Your task to perform on an android device: delete location history Image 0: 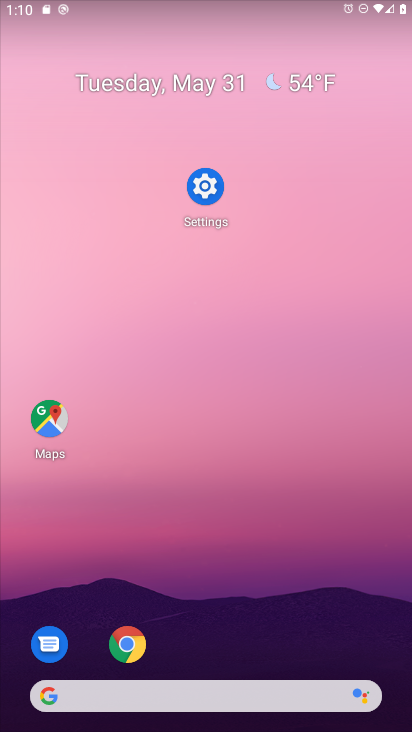
Step 0: press home button
Your task to perform on an android device: delete location history Image 1: 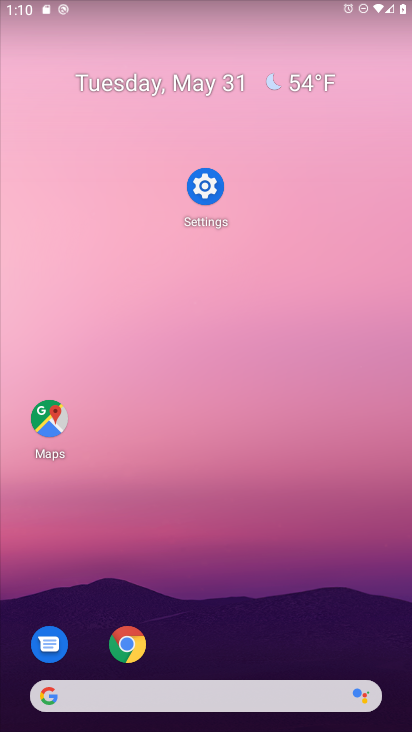
Step 1: drag from (230, 641) to (195, 104)
Your task to perform on an android device: delete location history Image 2: 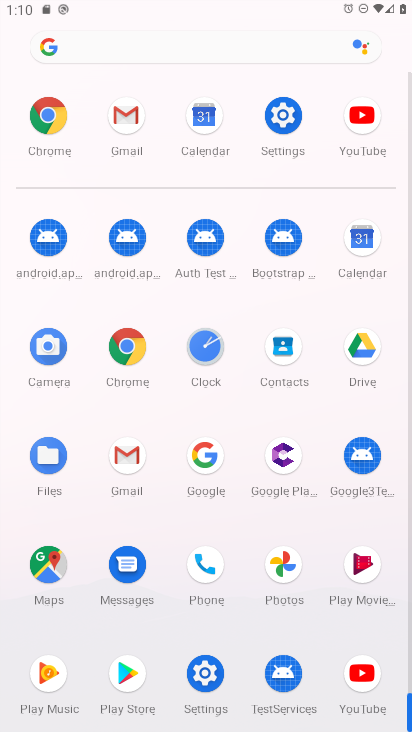
Step 2: click (47, 567)
Your task to perform on an android device: delete location history Image 3: 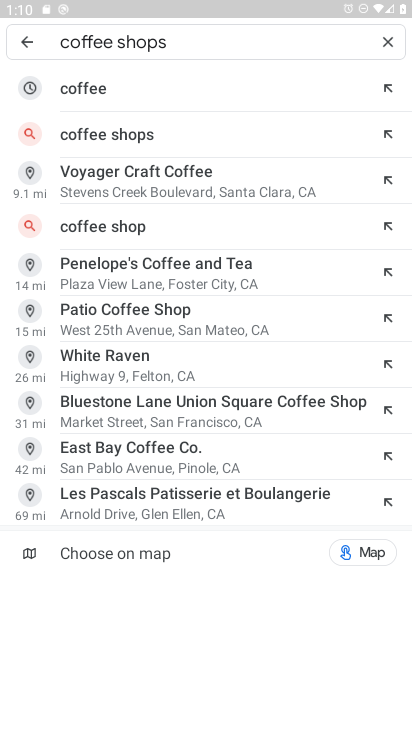
Step 3: click (390, 38)
Your task to perform on an android device: delete location history Image 4: 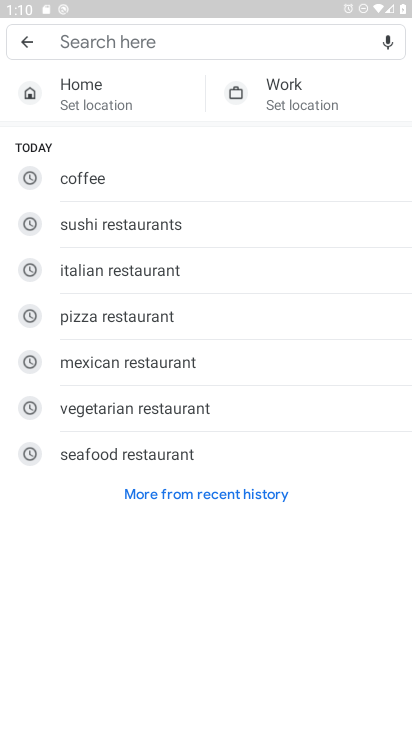
Step 4: click (31, 42)
Your task to perform on an android device: delete location history Image 5: 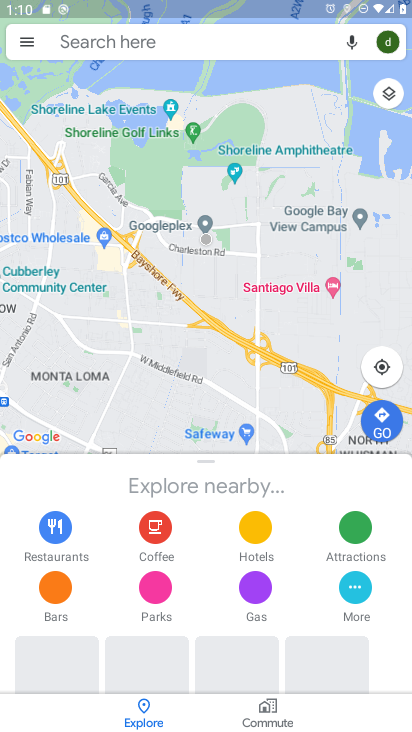
Step 5: click (31, 39)
Your task to perform on an android device: delete location history Image 6: 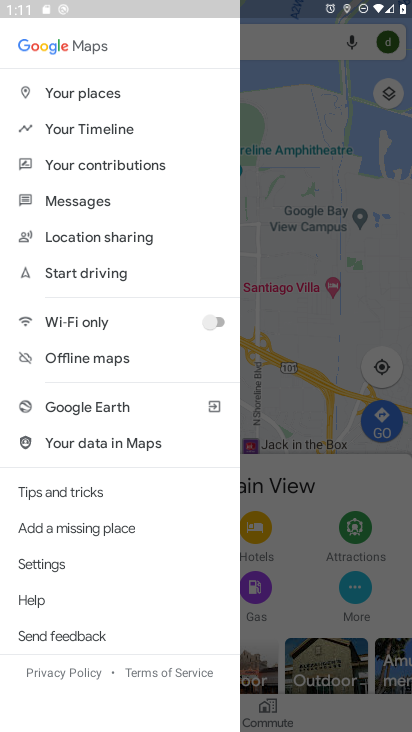
Step 6: click (91, 134)
Your task to perform on an android device: delete location history Image 7: 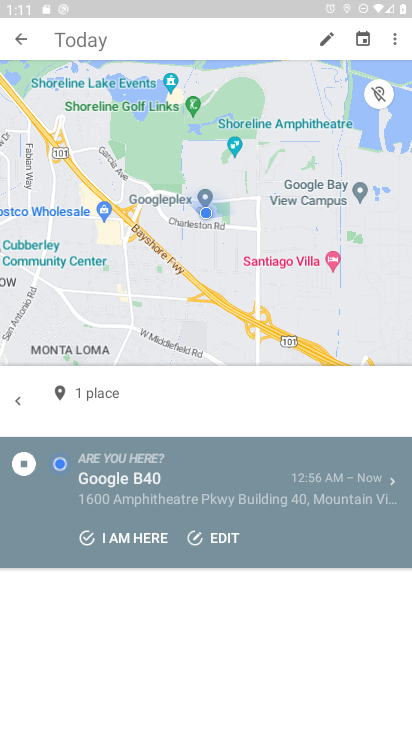
Step 7: drag from (395, 44) to (362, 75)
Your task to perform on an android device: delete location history Image 8: 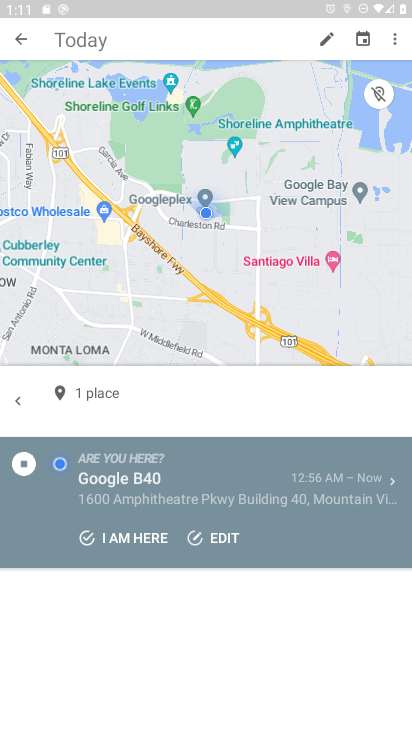
Step 8: click (394, 38)
Your task to perform on an android device: delete location history Image 9: 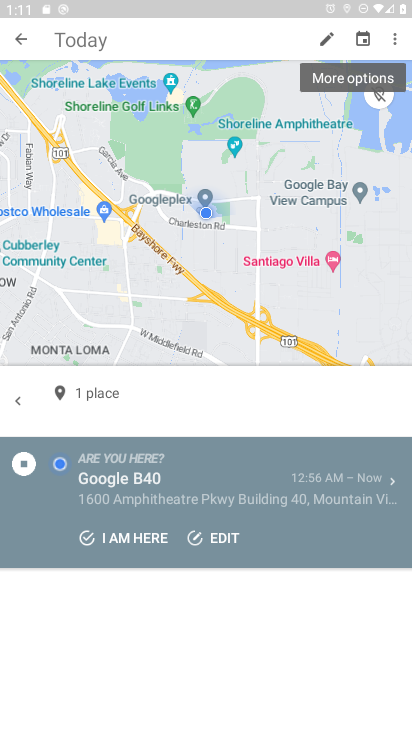
Step 9: click (369, 68)
Your task to perform on an android device: delete location history Image 10: 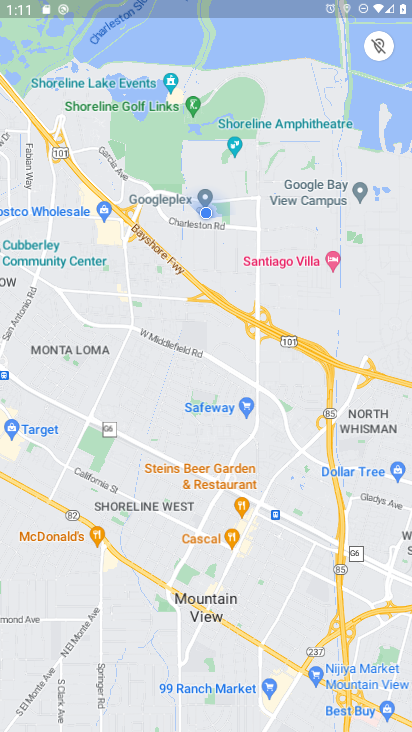
Step 10: click (374, 129)
Your task to perform on an android device: delete location history Image 11: 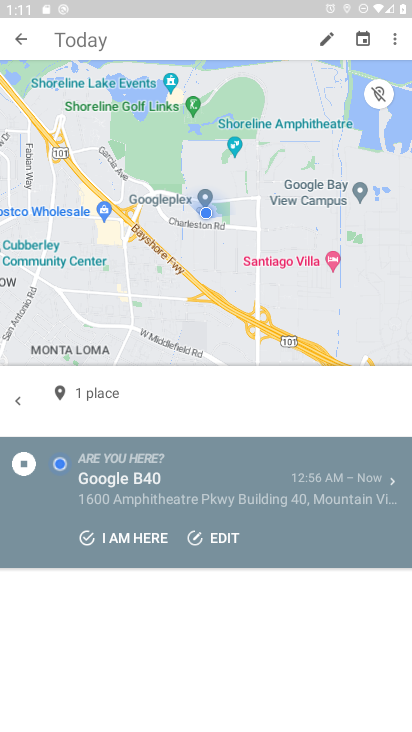
Step 11: click (398, 42)
Your task to perform on an android device: delete location history Image 12: 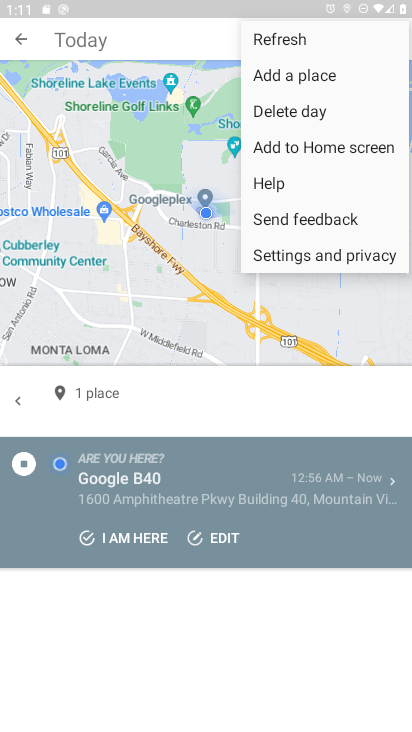
Step 12: click (295, 256)
Your task to perform on an android device: delete location history Image 13: 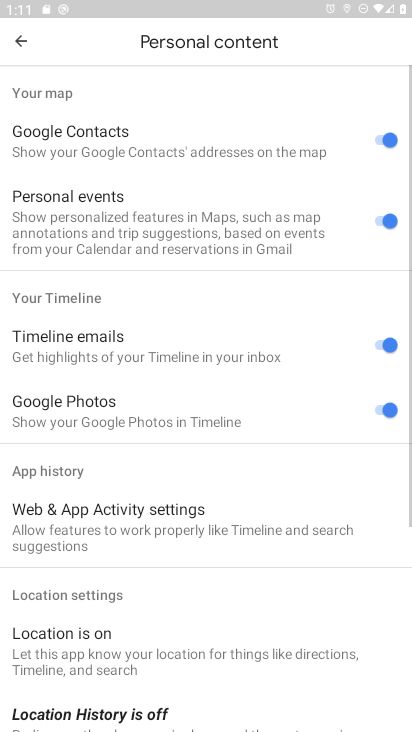
Step 13: drag from (236, 696) to (293, 286)
Your task to perform on an android device: delete location history Image 14: 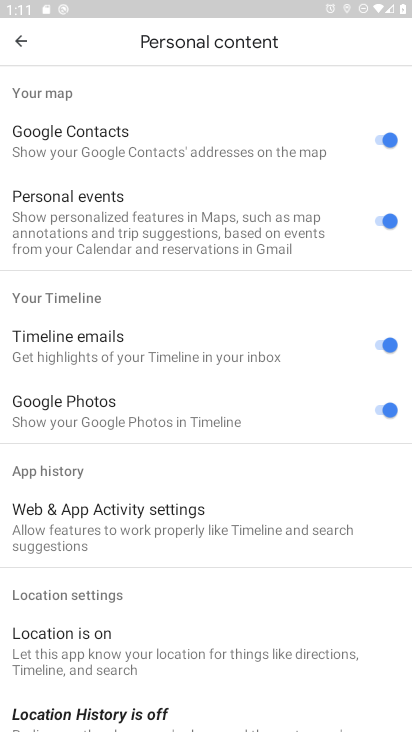
Step 14: drag from (288, 605) to (239, 244)
Your task to perform on an android device: delete location history Image 15: 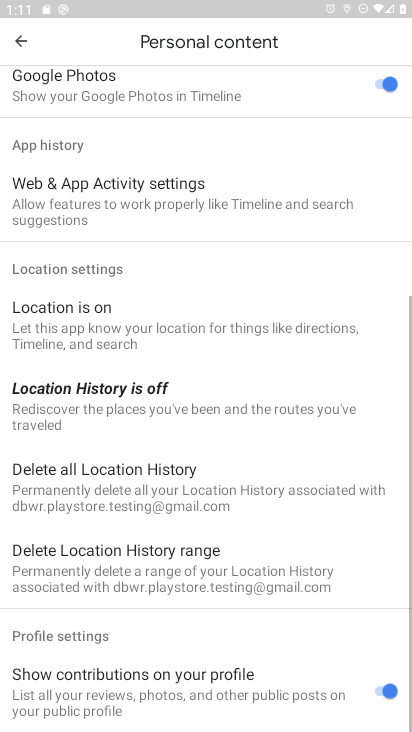
Step 15: drag from (259, 488) to (247, 73)
Your task to perform on an android device: delete location history Image 16: 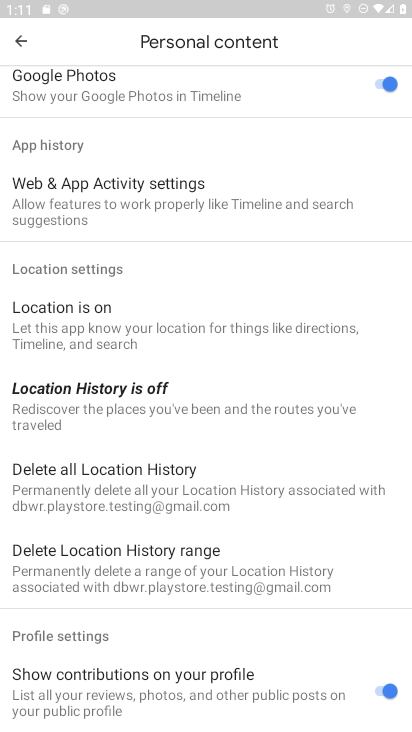
Step 16: click (170, 477)
Your task to perform on an android device: delete location history Image 17: 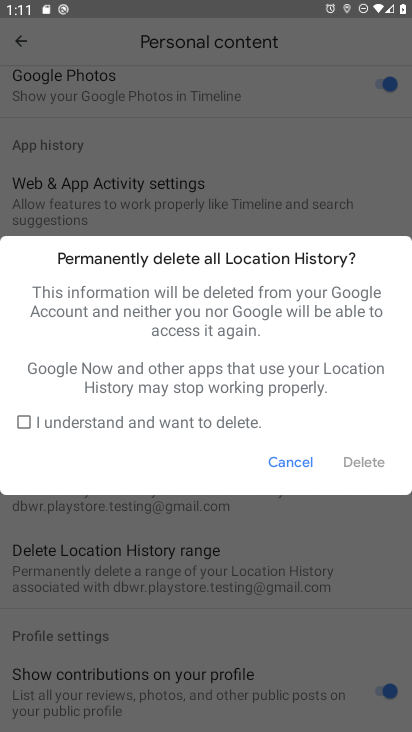
Step 17: click (23, 420)
Your task to perform on an android device: delete location history Image 18: 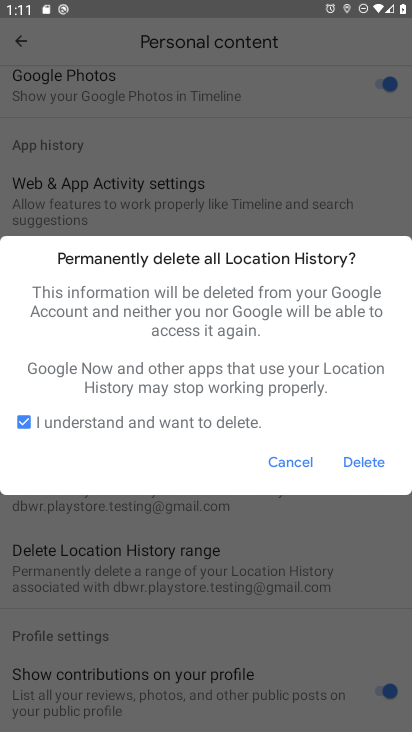
Step 18: click (375, 462)
Your task to perform on an android device: delete location history Image 19: 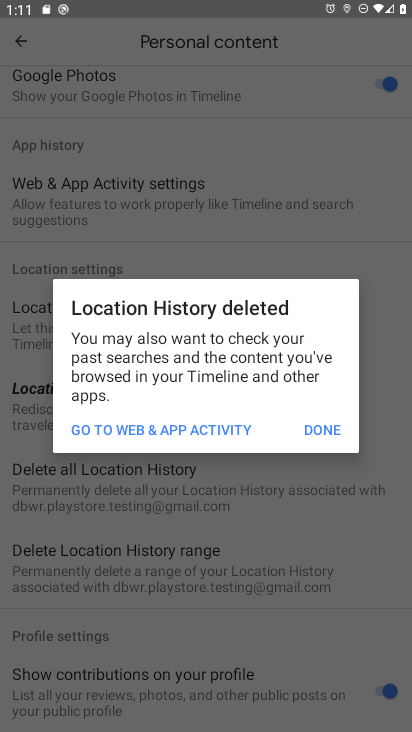
Step 19: click (316, 434)
Your task to perform on an android device: delete location history Image 20: 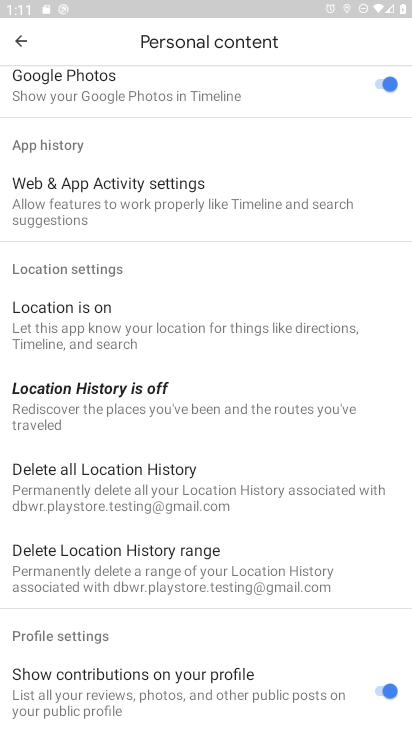
Step 20: task complete